Your task to perform on an android device: turn on the 24-hour format for clock Image 0: 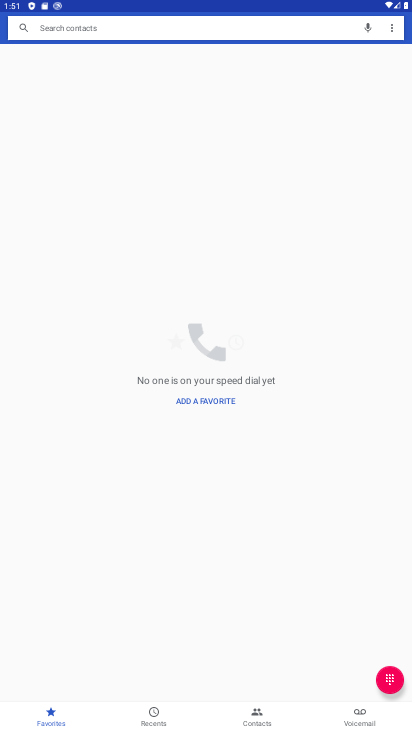
Step 0: press home button
Your task to perform on an android device: turn on the 24-hour format for clock Image 1: 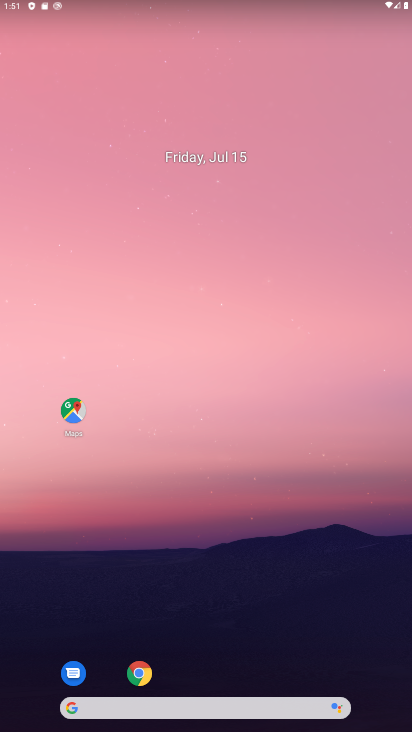
Step 1: drag from (234, 614) to (327, 36)
Your task to perform on an android device: turn on the 24-hour format for clock Image 2: 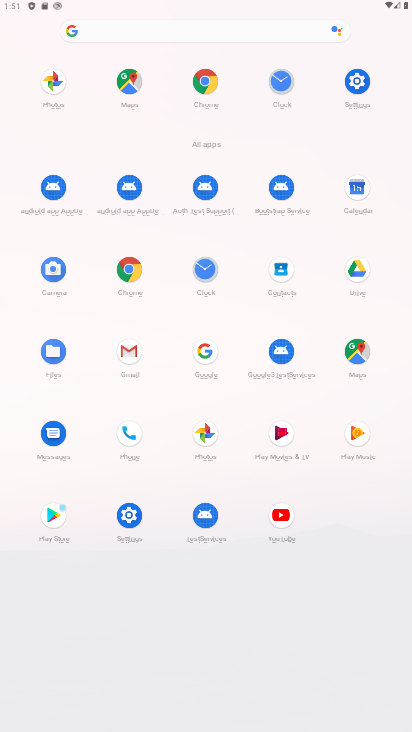
Step 2: click (210, 269)
Your task to perform on an android device: turn on the 24-hour format for clock Image 3: 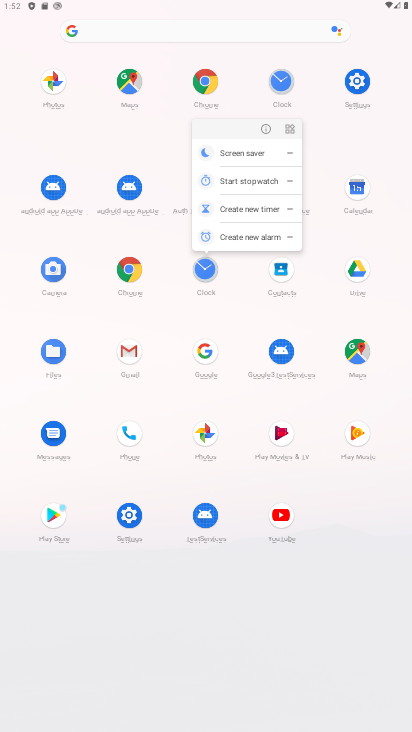
Step 3: click (211, 277)
Your task to perform on an android device: turn on the 24-hour format for clock Image 4: 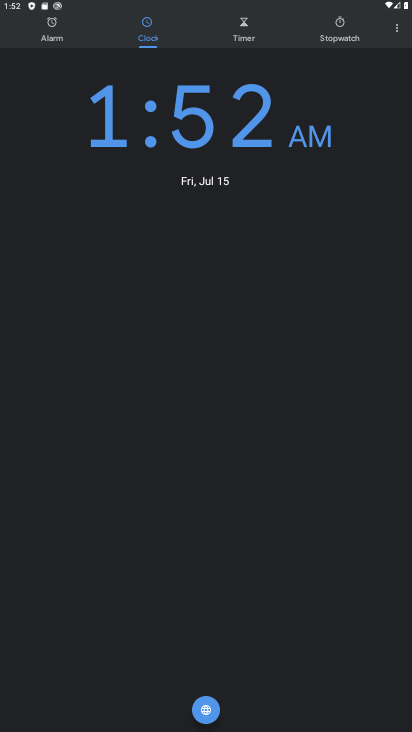
Step 4: click (390, 35)
Your task to perform on an android device: turn on the 24-hour format for clock Image 5: 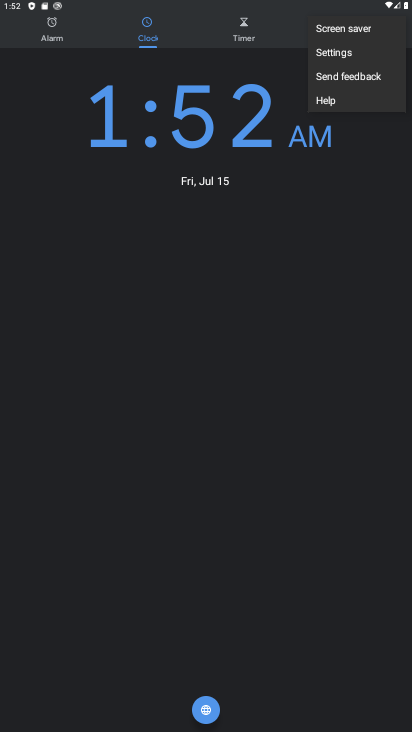
Step 5: click (337, 54)
Your task to perform on an android device: turn on the 24-hour format for clock Image 6: 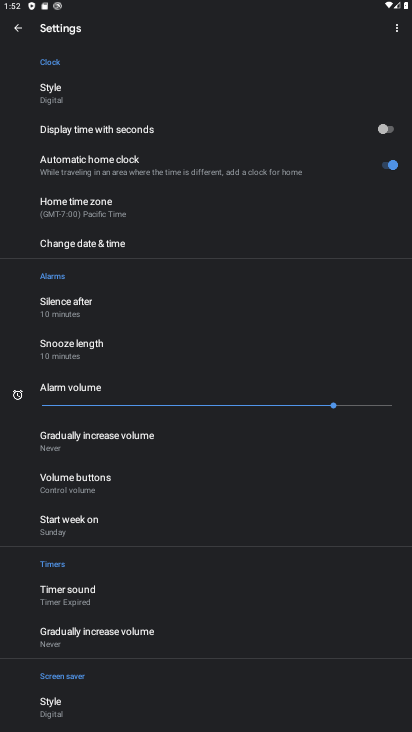
Step 6: click (80, 245)
Your task to perform on an android device: turn on the 24-hour format for clock Image 7: 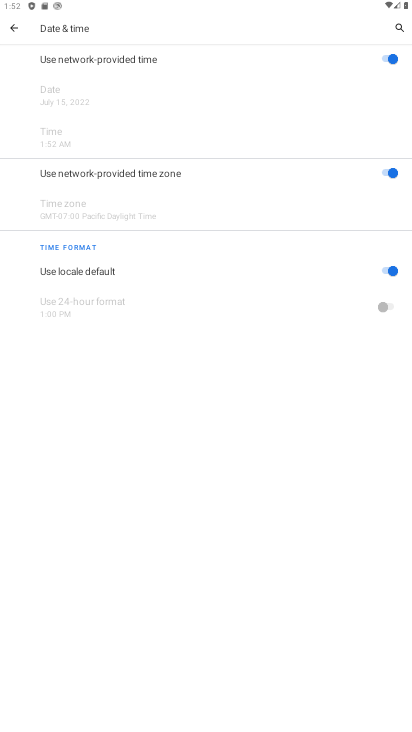
Step 7: click (388, 269)
Your task to perform on an android device: turn on the 24-hour format for clock Image 8: 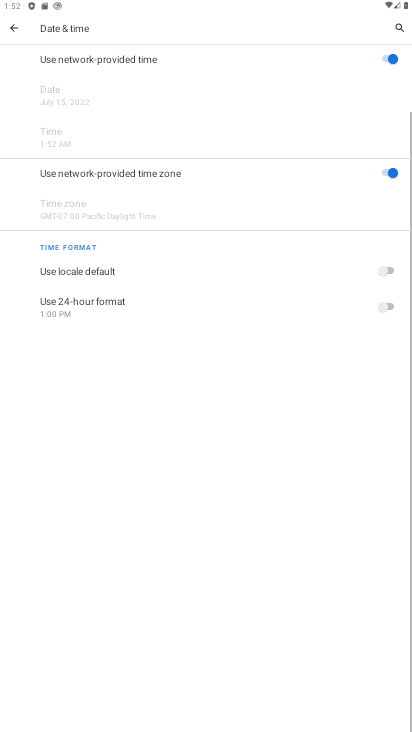
Step 8: click (385, 313)
Your task to perform on an android device: turn on the 24-hour format for clock Image 9: 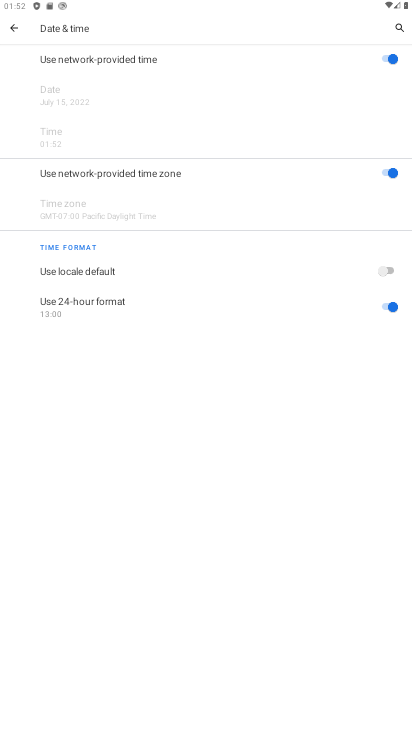
Step 9: task complete